Your task to perform on an android device: Open calendar and show me the second week of next month Image 0: 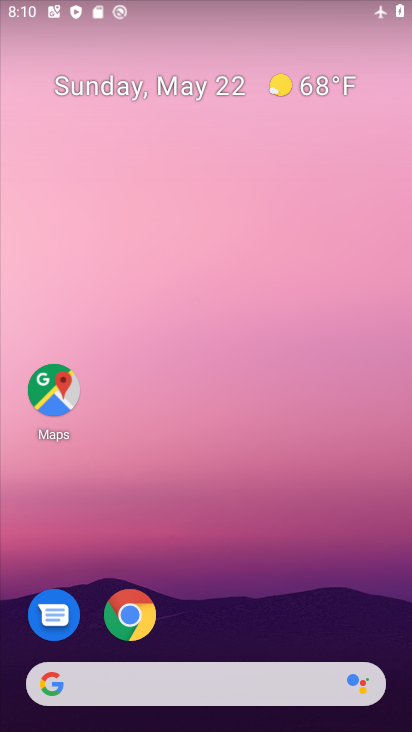
Step 0: drag from (210, 640) to (173, 148)
Your task to perform on an android device: Open calendar and show me the second week of next month Image 1: 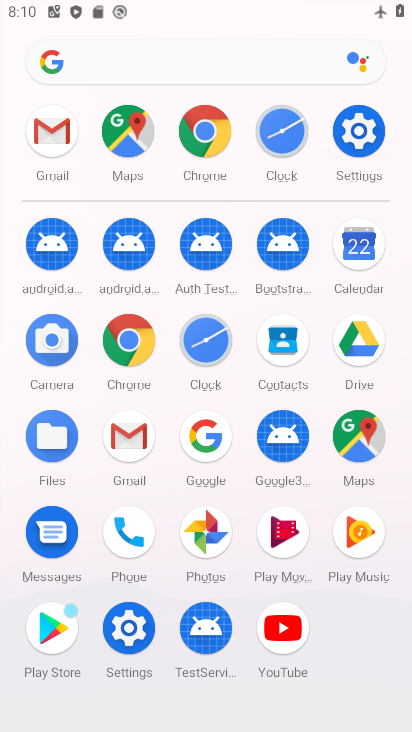
Step 1: click (360, 252)
Your task to perform on an android device: Open calendar and show me the second week of next month Image 2: 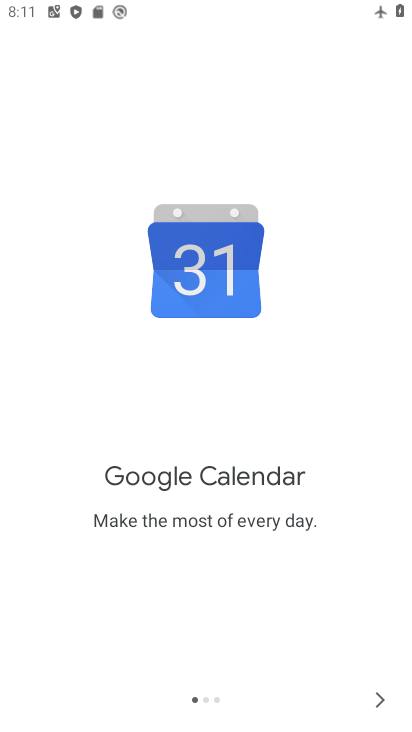
Step 2: click (375, 692)
Your task to perform on an android device: Open calendar and show me the second week of next month Image 3: 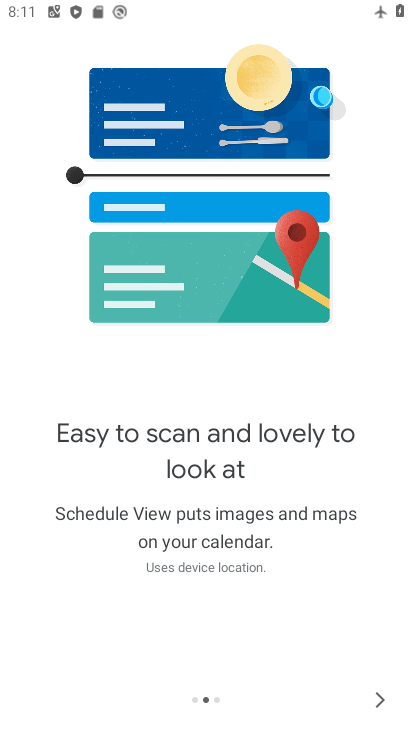
Step 3: click (375, 692)
Your task to perform on an android device: Open calendar and show me the second week of next month Image 4: 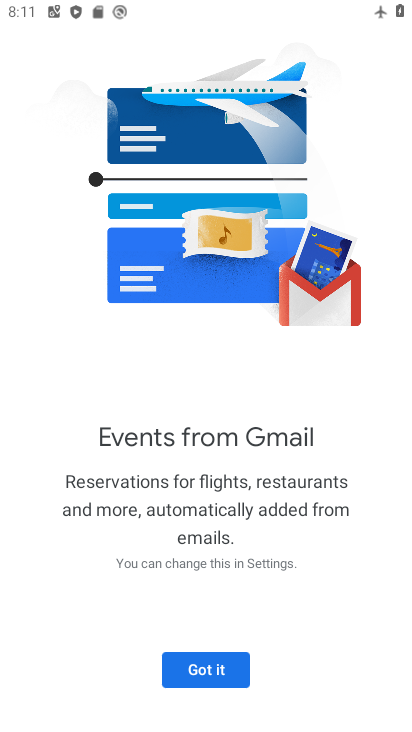
Step 4: click (224, 674)
Your task to perform on an android device: Open calendar and show me the second week of next month Image 5: 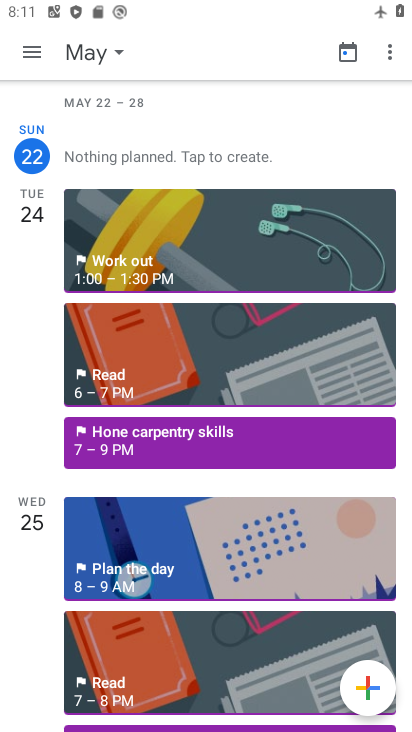
Step 5: click (30, 51)
Your task to perform on an android device: Open calendar and show me the second week of next month Image 6: 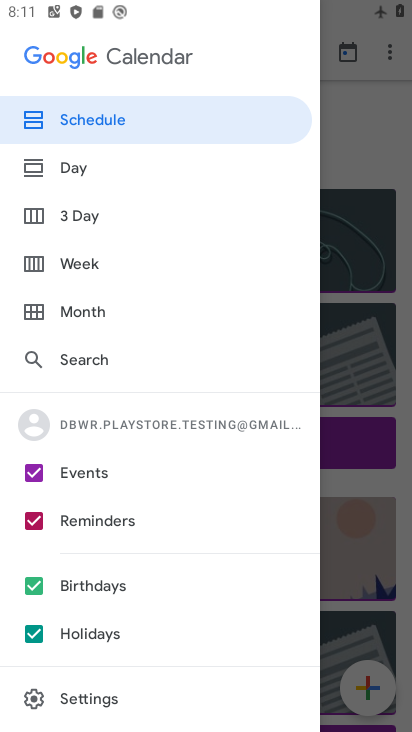
Step 6: click (58, 249)
Your task to perform on an android device: Open calendar and show me the second week of next month Image 7: 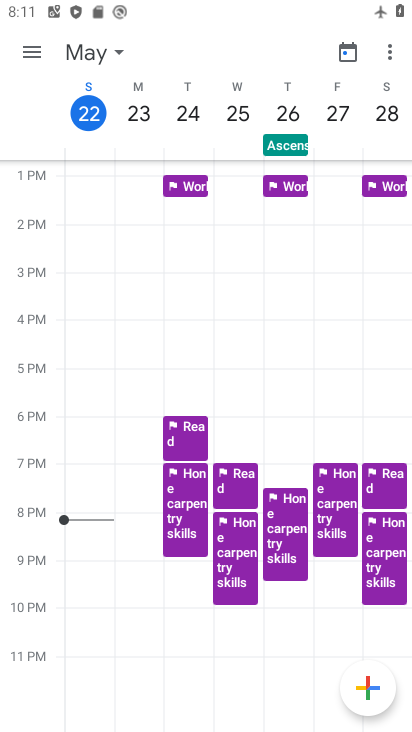
Step 7: task complete